Your task to perform on an android device: Open Chrome and go to settings Image 0: 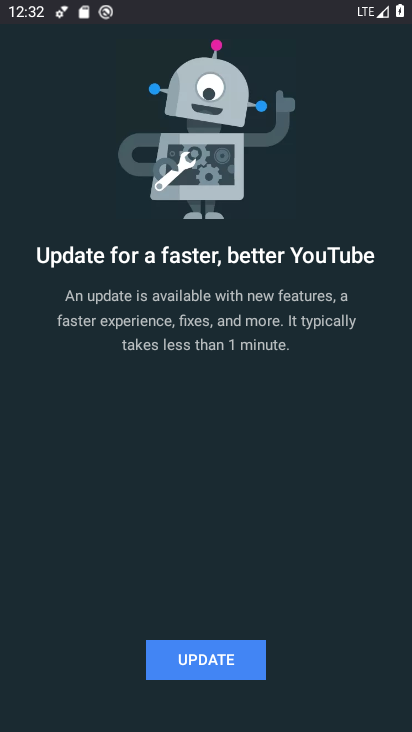
Step 0: press home button
Your task to perform on an android device: Open Chrome and go to settings Image 1: 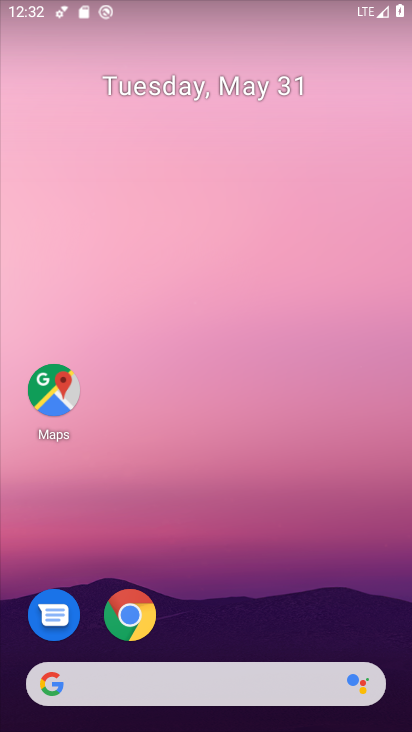
Step 1: click (134, 610)
Your task to perform on an android device: Open Chrome and go to settings Image 2: 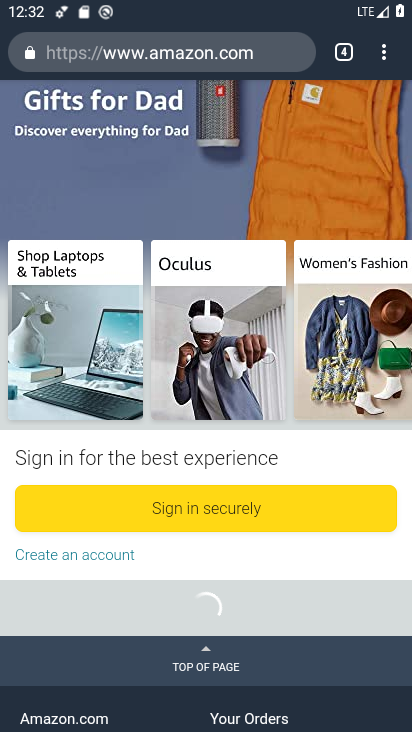
Step 2: click (385, 55)
Your task to perform on an android device: Open Chrome and go to settings Image 3: 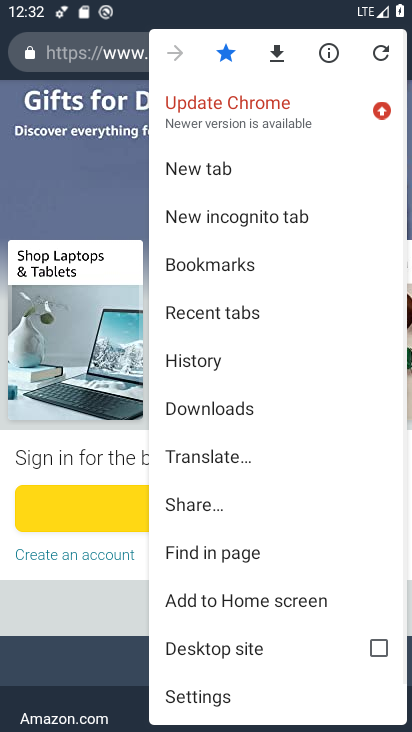
Step 3: click (217, 700)
Your task to perform on an android device: Open Chrome and go to settings Image 4: 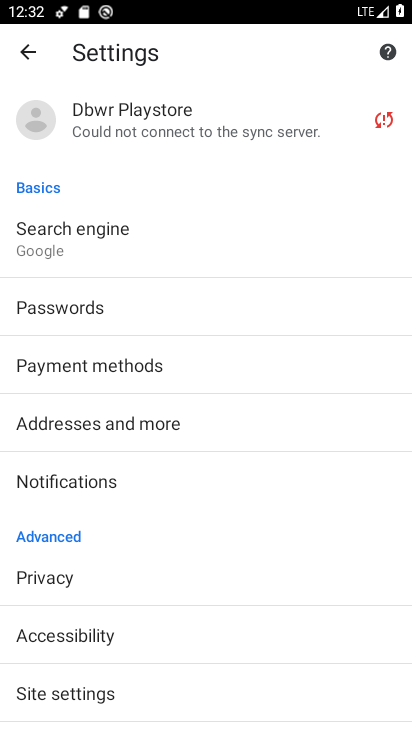
Step 4: task complete